Your task to perform on an android device: search for starred emails in the gmail app Image 0: 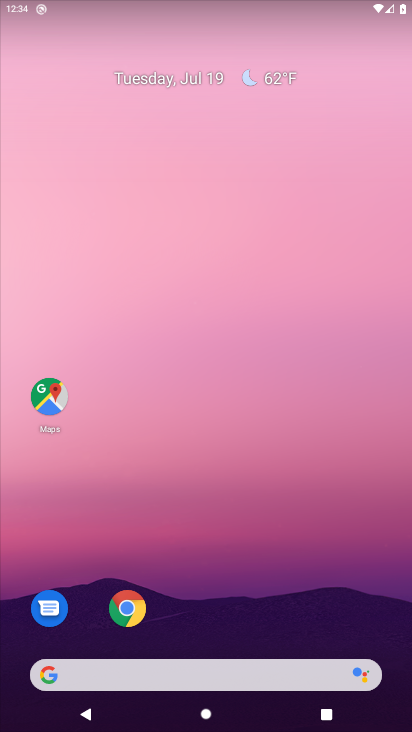
Step 0: drag from (199, 637) to (217, 16)
Your task to perform on an android device: search for starred emails in the gmail app Image 1: 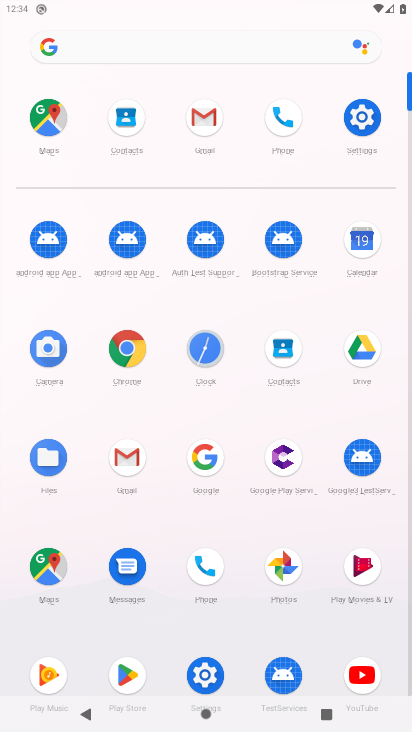
Step 1: click (203, 110)
Your task to perform on an android device: search for starred emails in the gmail app Image 2: 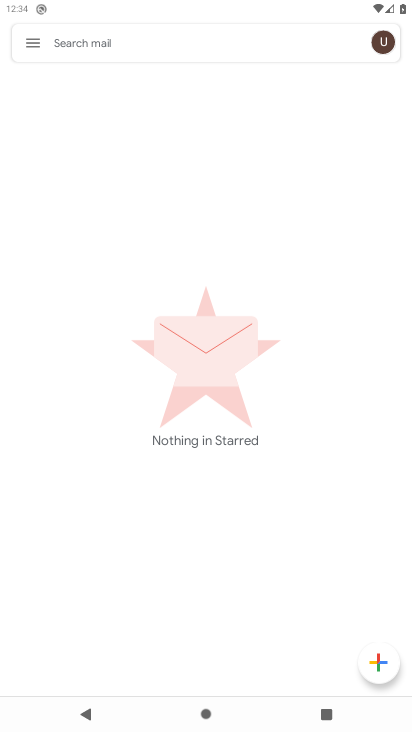
Step 2: task complete